Your task to perform on an android device: Open the Play Movies app and select the watchlist tab. Image 0: 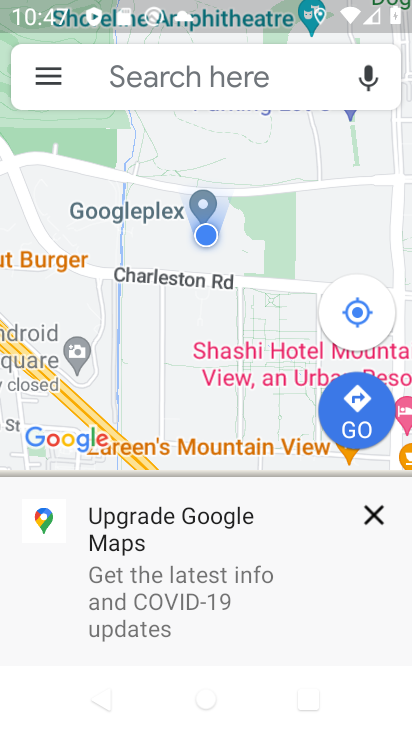
Step 0: press home button
Your task to perform on an android device: Open the Play Movies app and select the watchlist tab. Image 1: 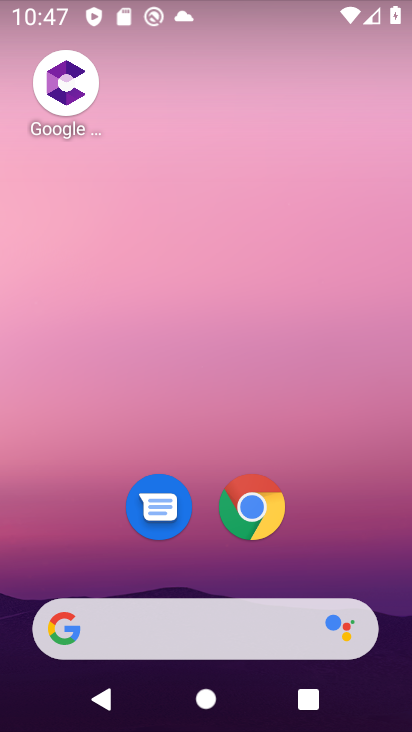
Step 1: drag from (314, 550) to (239, 161)
Your task to perform on an android device: Open the Play Movies app and select the watchlist tab. Image 2: 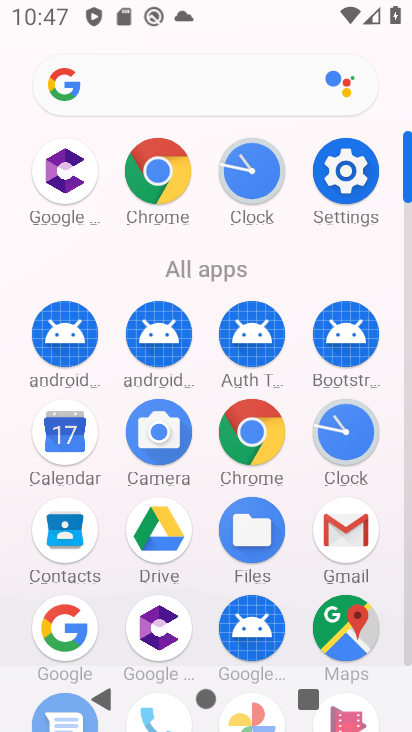
Step 2: drag from (208, 569) to (189, 306)
Your task to perform on an android device: Open the Play Movies app and select the watchlist tab. Image 3: 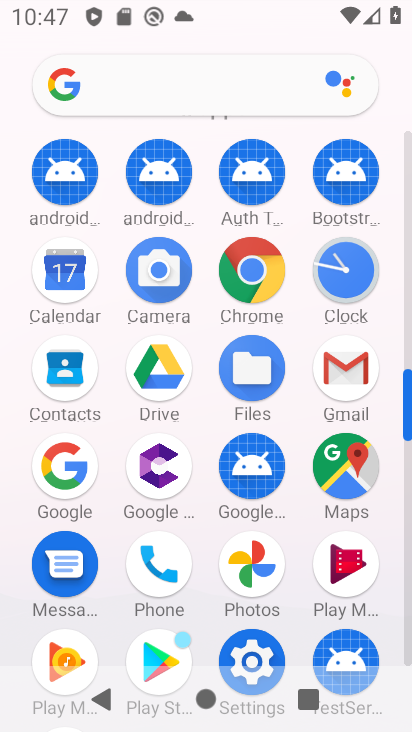
Step 3: drag from (200, 601) to (185, 344)
Your task to perform on an android device: Open the Play Movies app and select the watchlist tab. Image 4: 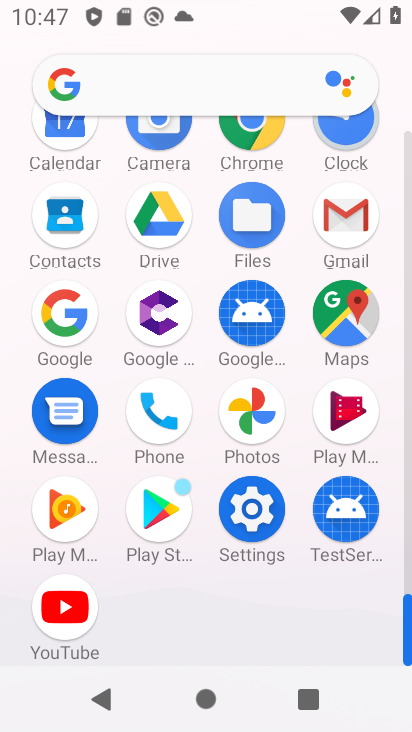
Step 4: click (338, 412)
Your task to perform on an android device: Open the Play Movies app and select the watchlist tab. Image 5: 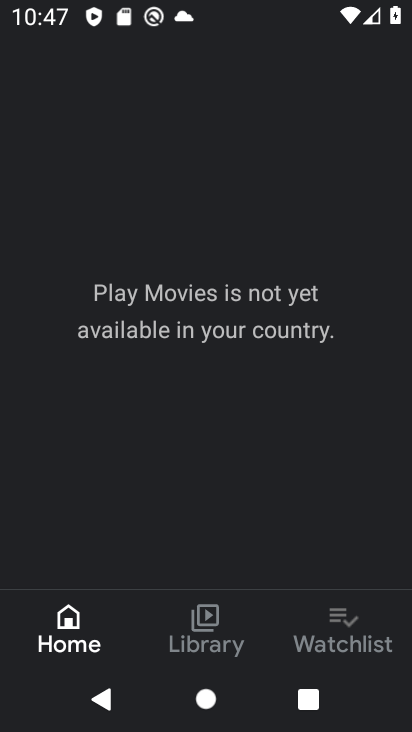
Step 5: click (337, 630)
Your task to perform on an android device: Open the Play Movies app and select the watchlist tab. Image 6: 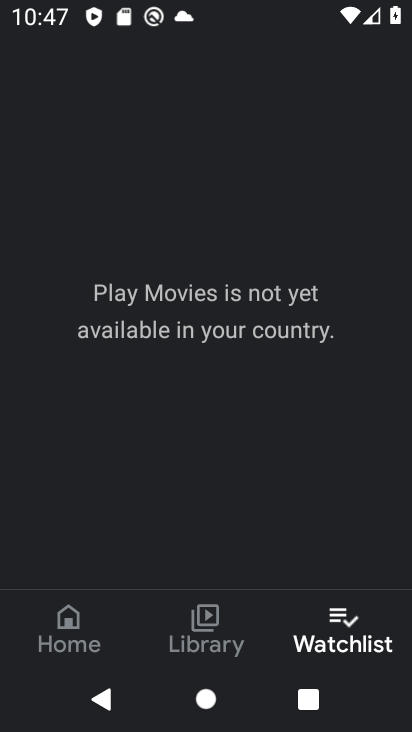
Step 6: task complete